Your task to perform on an android device: Open Wikipedia Image 0: 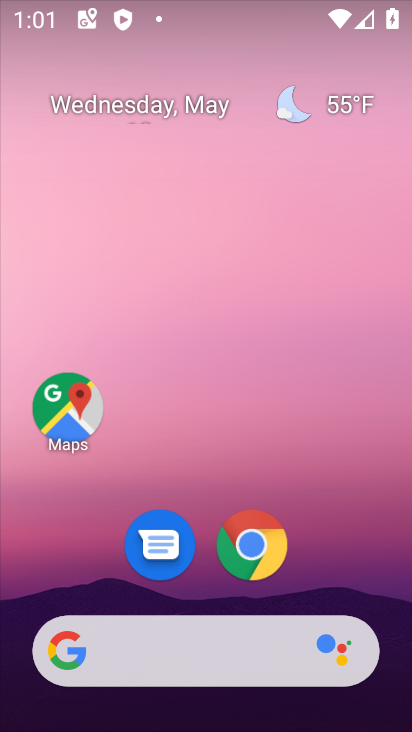
Step 0: click (255, 526)
Your task to perform on an android device: Open Wikipedia Image 1: 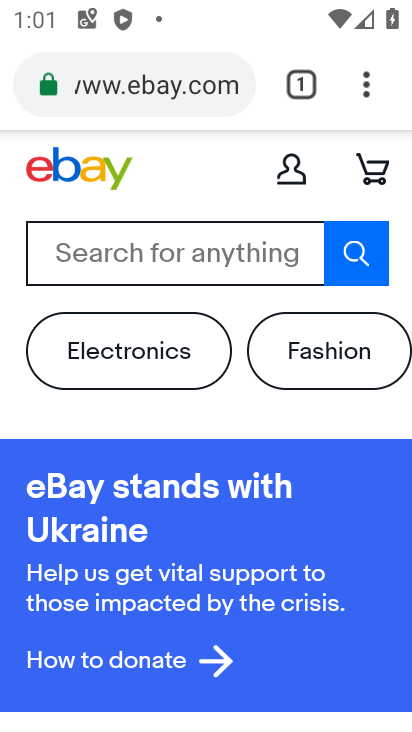
Step 1: click (312, 90)
Your task to perform on an android device: Open Wikipedia Image 2: 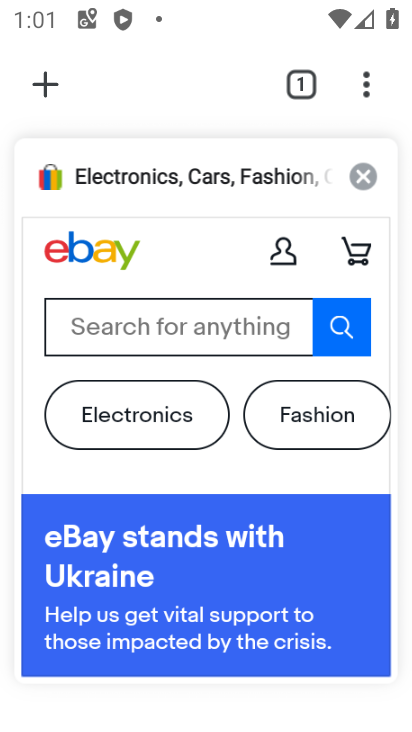
Step 2: click (366, 173)
Your task to perform on an android device: Open Wikipedia Image 3: 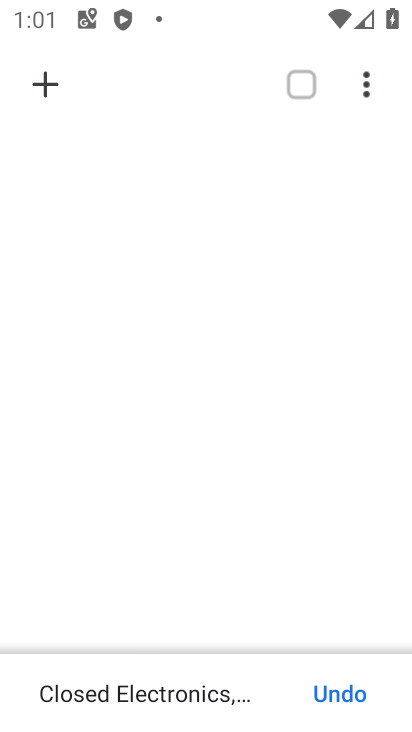
Step 3: click (56, 91)
Your task to perform on an android device: Open Wikipedia Image 4: 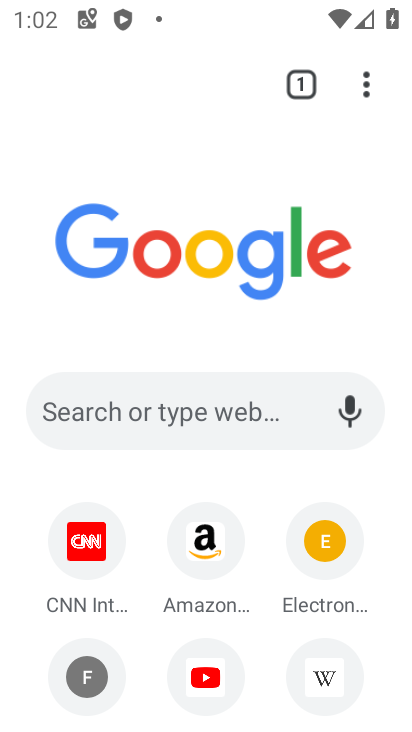
Step 4: click (327, 665)
Your task to perform on an android device: Open Wikipedia Image 5: 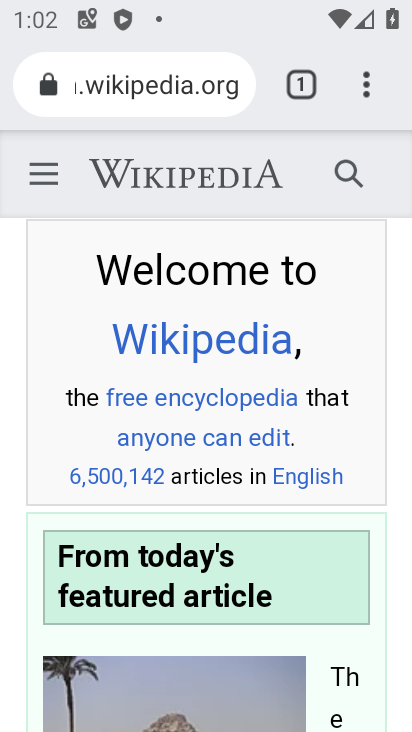
Step 5: task complete